Your task to perform on an android device: Search for pizza restaurants on Maps Image 0: 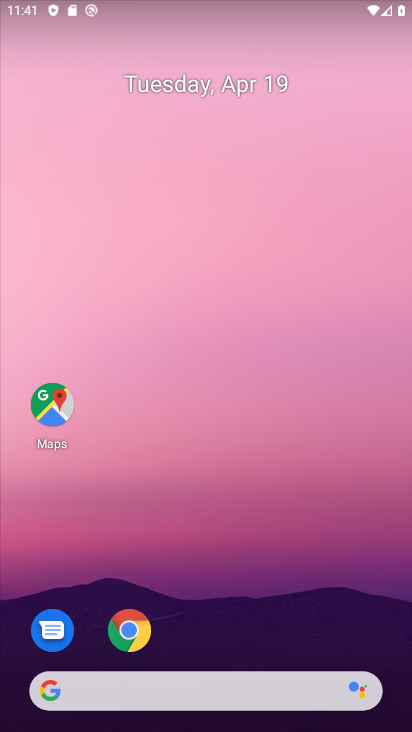
Step 0: drag from (257, 650) to (259, 103)
Your task to perform on an android device: Search for pizza restaurants on Maps Image 1: 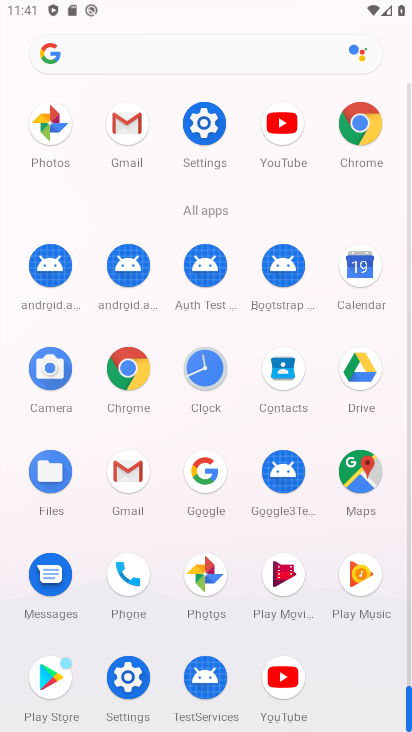
Step 1: click (364, 466)
Your task to perform on an android device: Search for pizza restaurants on Maps Image 2: 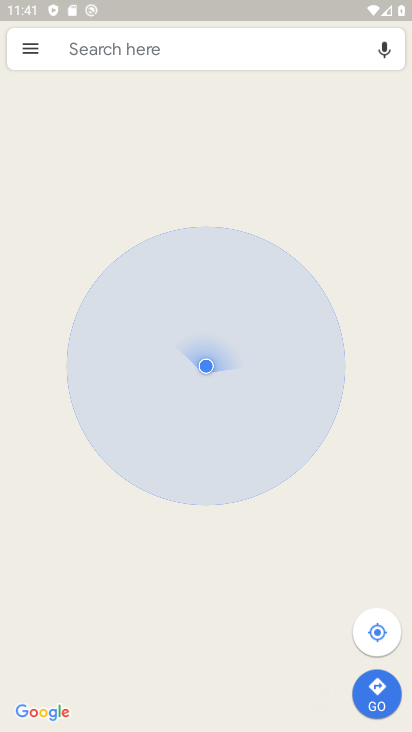
Step 2: click (93, 45)
Your task to perform on an android device: Search for pizza restaurants on Maps Image 3: 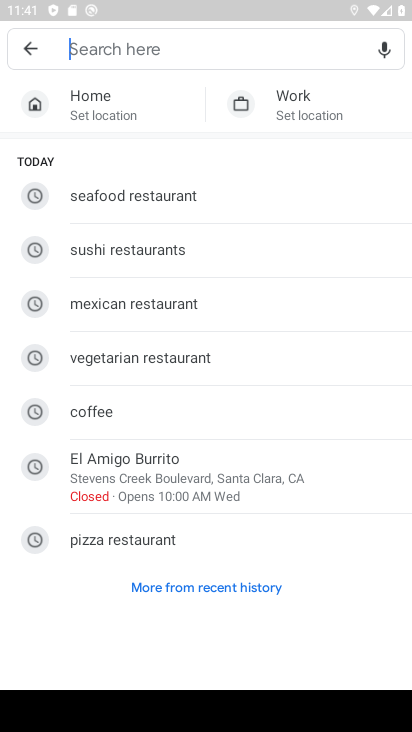
Step 3: type " pizza restaurants"
Your task to perform on an android device: Search for pizza restaurants on Maps Image 4: 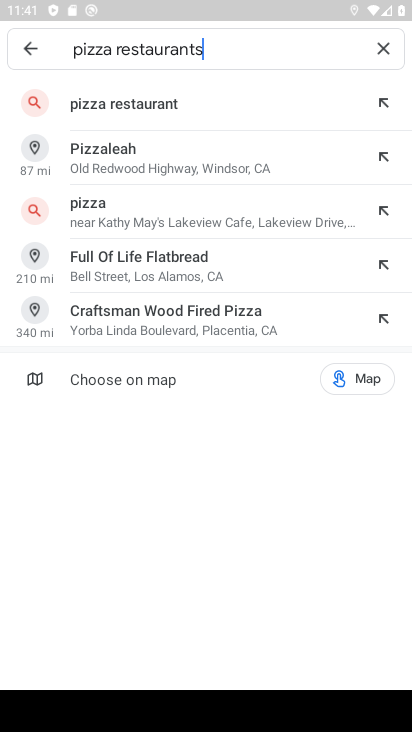
Step 4: click (139, 104)
Your task to perform on an android device: Search for pizza restaurants on Maps Image 5: 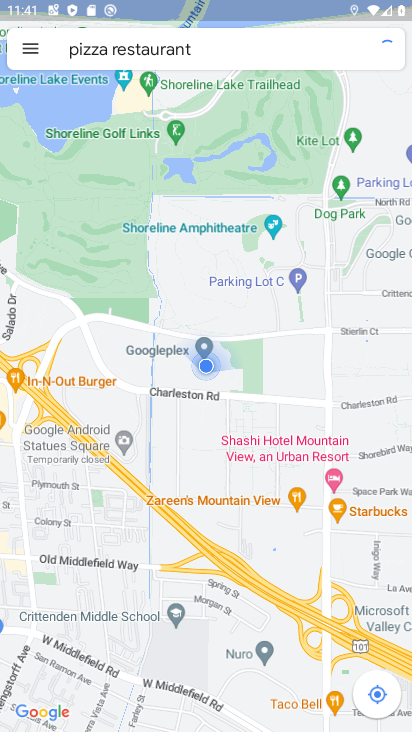
Step 5: task complete